Your task to perform on an android device: Search for razer thresher on walmart.com, select the first entry, add it to the cart, then select checkout. Image 0: 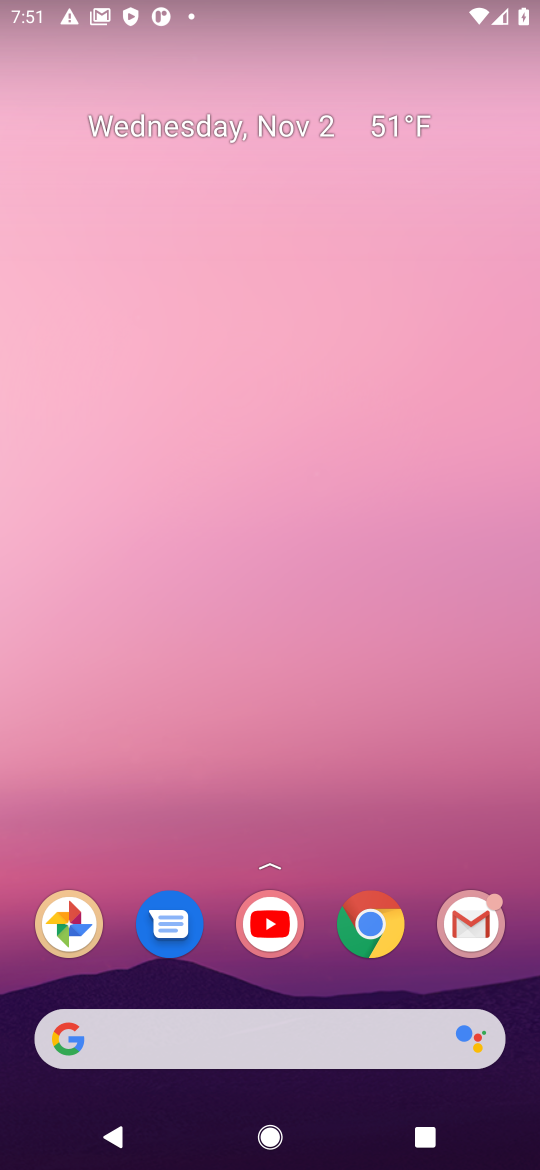
Step 0: click (369, 929)
Your task to perform on an android device: Search for razer thresher on walmart.com, select the first entry, add it to the cart, then select checkout. Image 1: 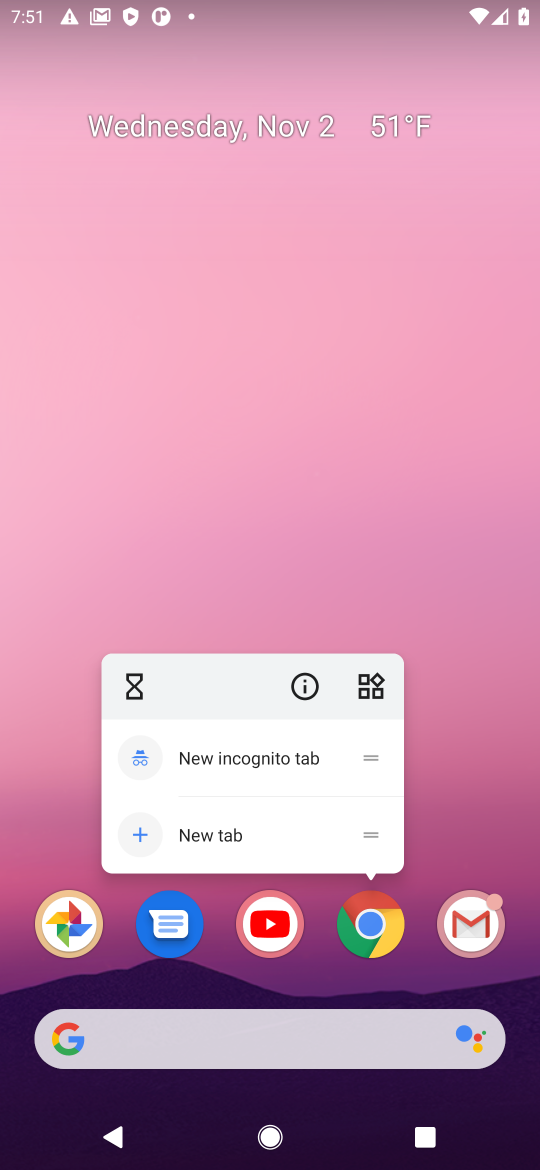
Step 1: click (371, 931)
Your task to perform on an android device: Search for razer thresher on walmart.com, select the first entry, add it to the cart, then select checkout. Image 2: 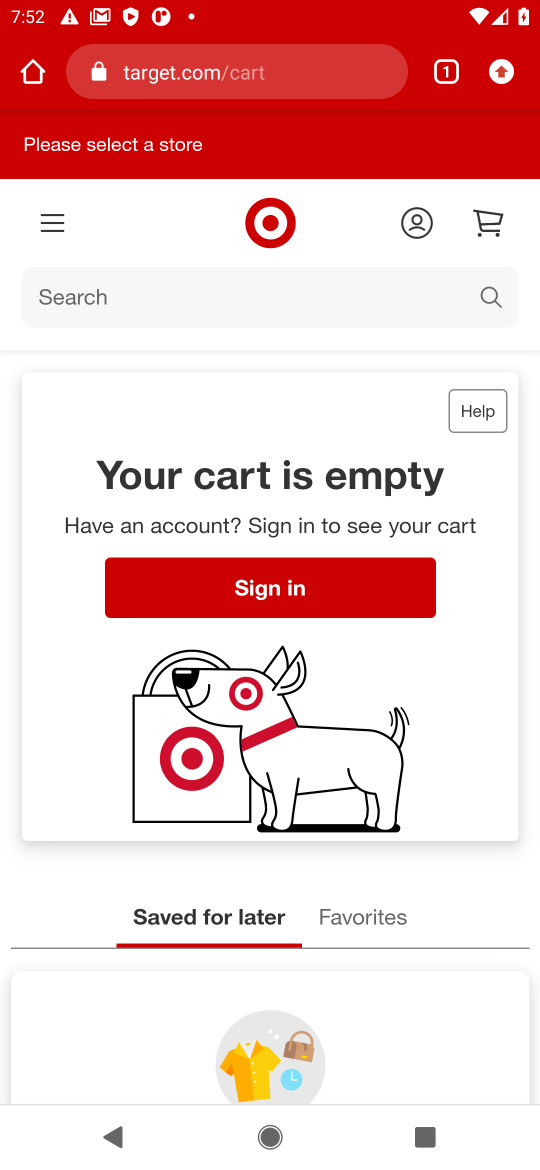
Step 2: click (289, 88)
Your task to perform on an android device: Search for razer thresher on walmart.com, select the first entry, add it to the cart, then select checkout. Image 3: 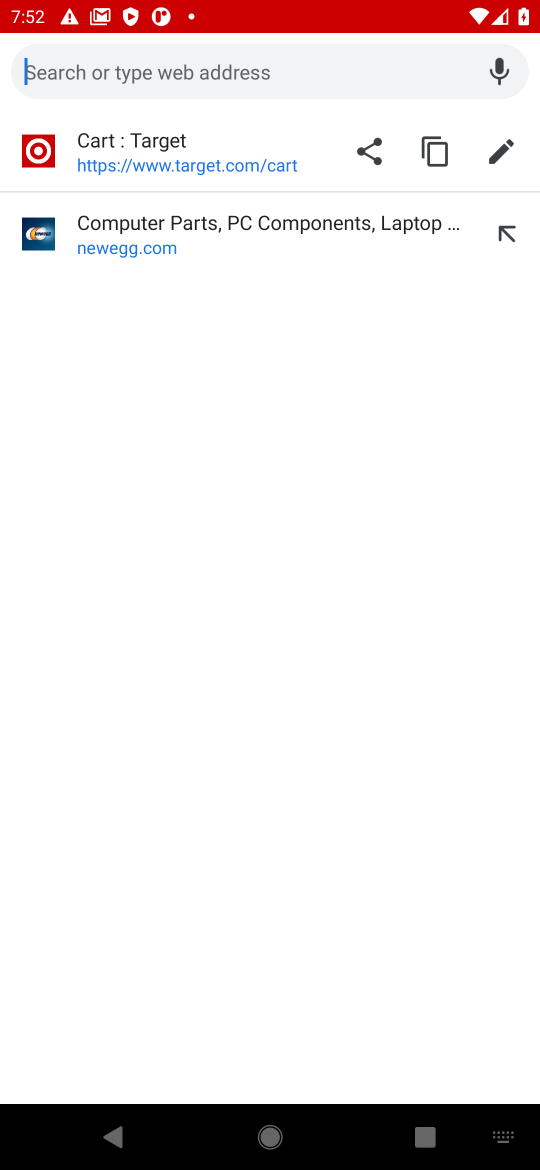
Step 3: type "walmart"
Your task to perform on an android device: Search for razer thresher on walmart.com, select the first entry, add it to the cart, then select checkout. Image 4: 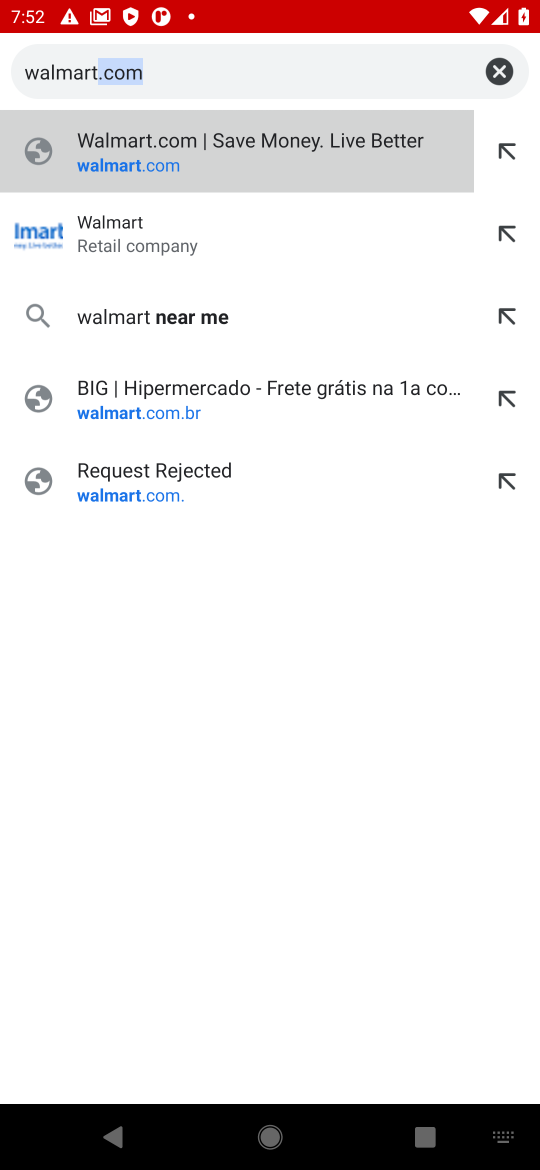
Step 4: click (148, 234)
Your task to perform on an android device: Search for razer thresher on walmart.com, select the first entry, add it to the cart, then select checkout. Image 5: 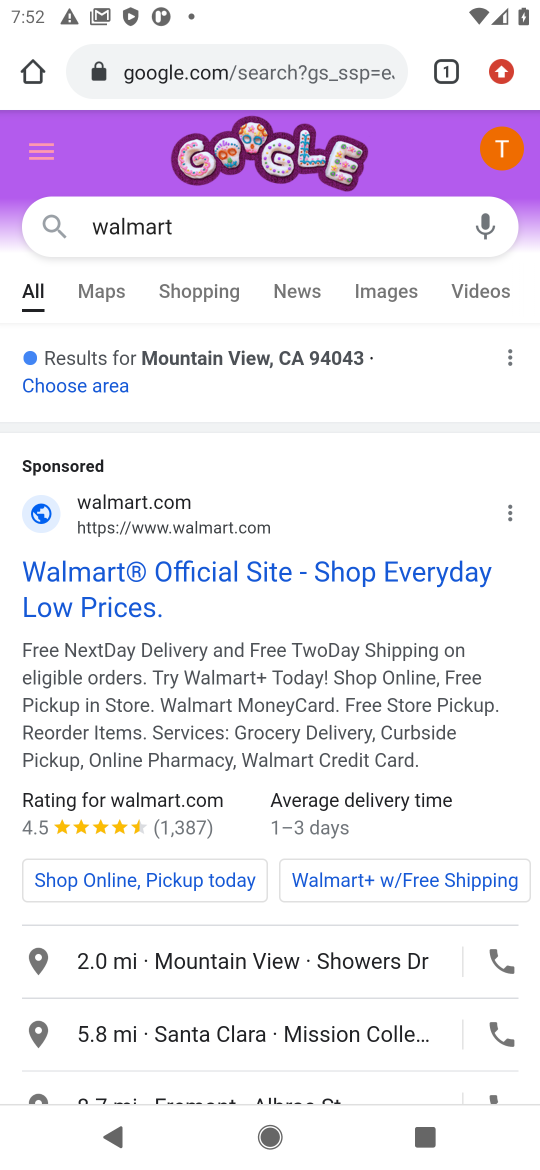
Step 5: click (181, 579)
Your task to perform on an android device: Search for razer thresher on walmart.com, select the first entry, add it to the cart, then select checkout. Image 6: 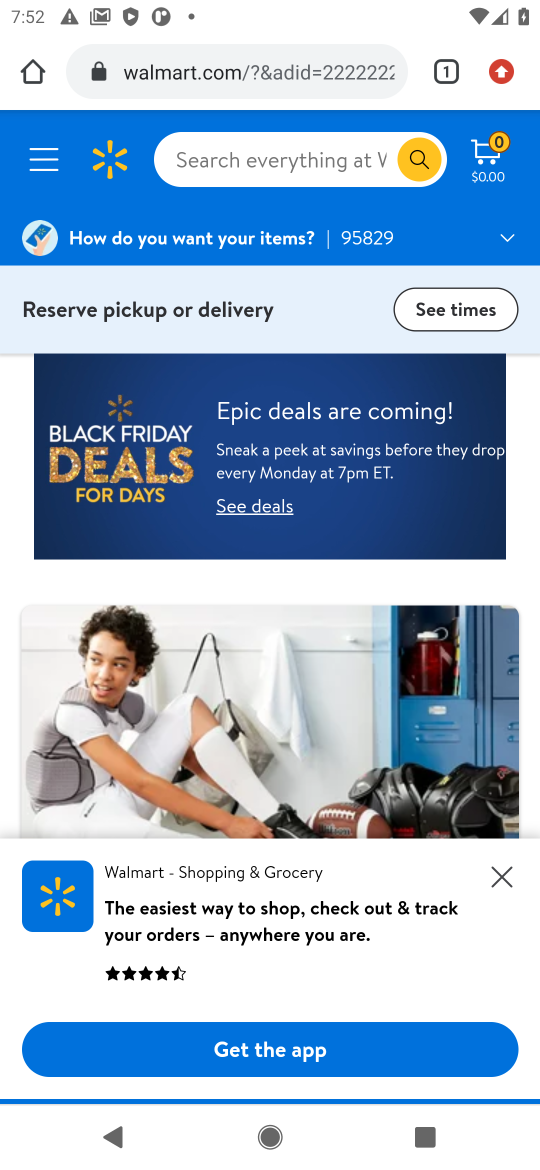
Step 6: click (288, 154)
Your task to perform on an android device: Search for razer thresher on walmart.com, select the first entry, add it to the cart, then select checkout. Image 7: 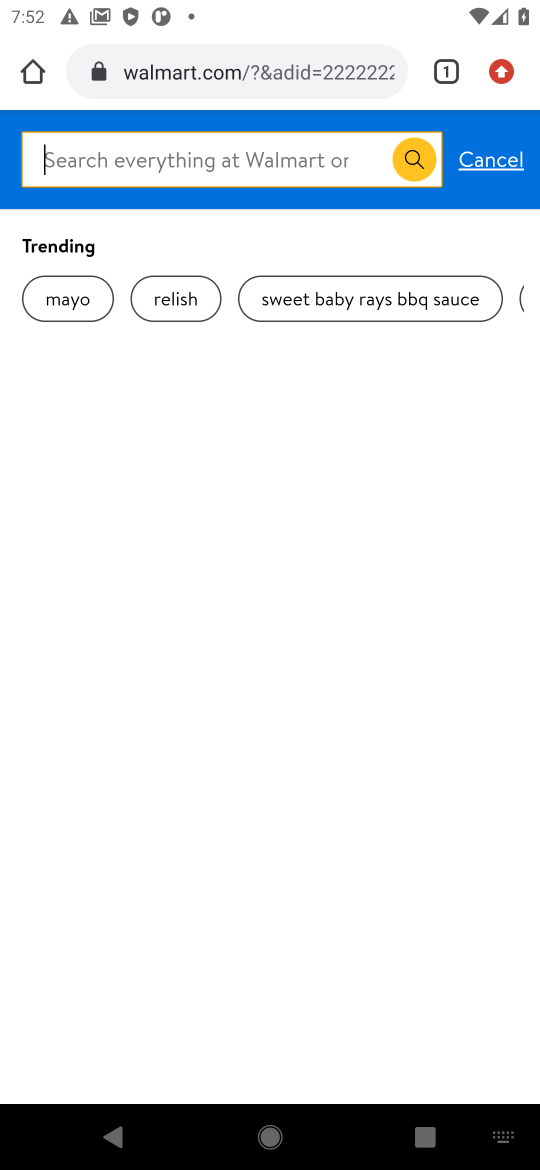
Step 7: type "razer thresher"
Your task to perform on an android device: Search for razer thresher on walmart.com, select the first entry, add it to the cart, then select checkout. Image 8: 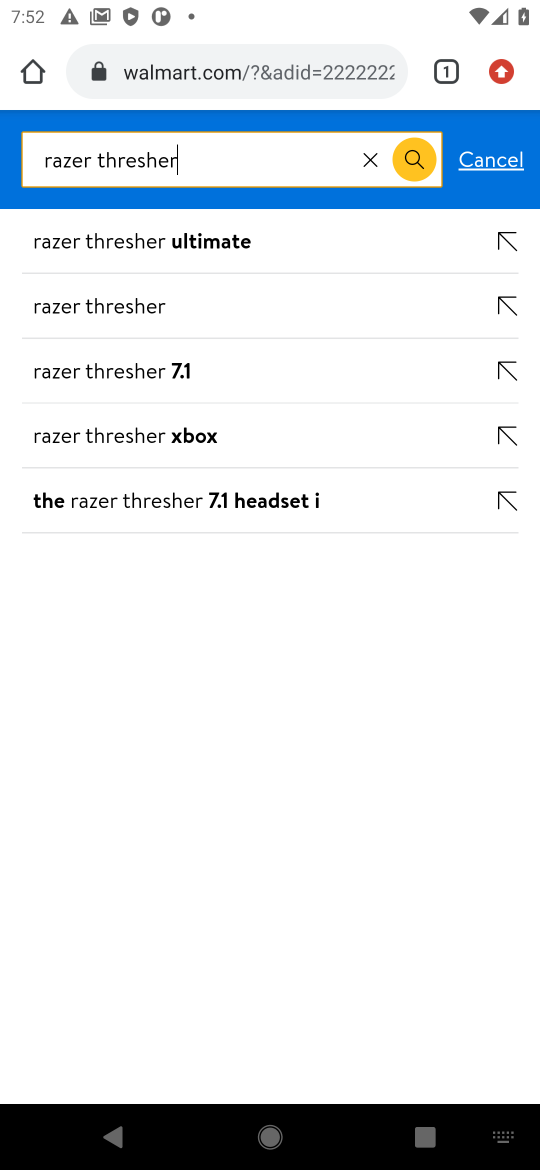
Step 8: type ""
Your task to perform on an android device: Search for razer thresher on walmart.com, select the first entry, add it to the cart, then select checkout. Image 9: 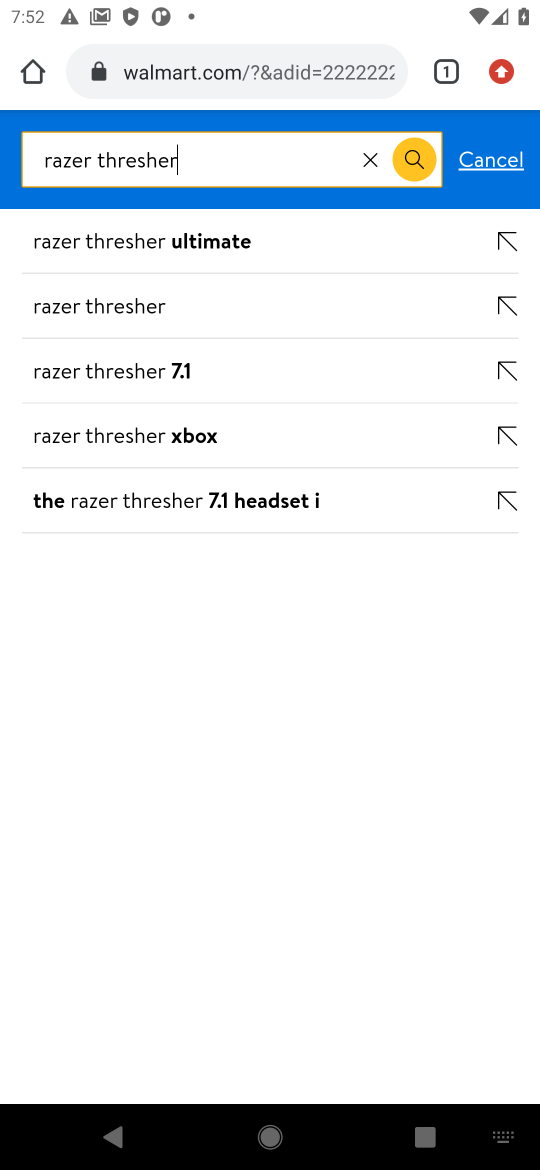
Step 9: click (114, 312)
Your task to perform on an android device: Search for razer thresher on walmart.com, select the first entry, add it to the cart, then select checkout. Image 10: 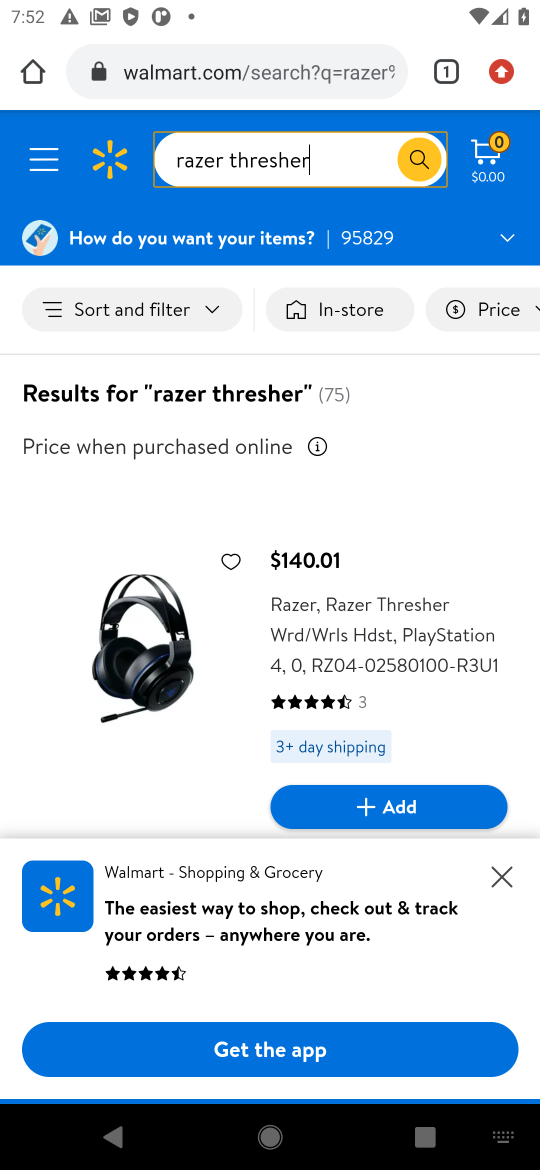
Step 10: click (500, 876)
Your task to perform on an android device: Search for razer thresher on walmart.com, select the first entry, add it to the cart, then select checkout. Image 11: 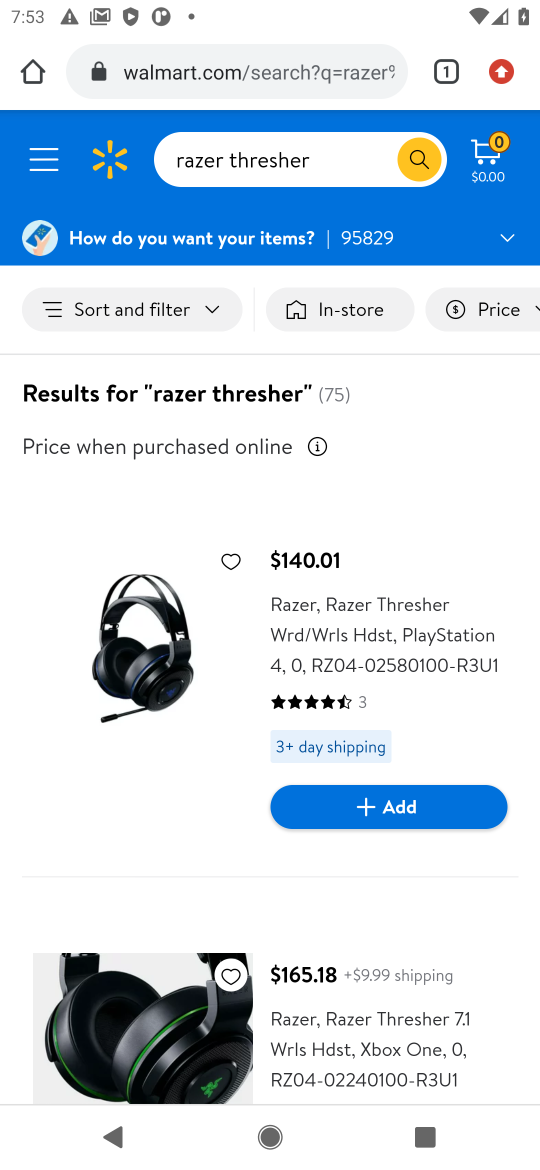
Step 11: click (354, 610)
Your task to perform on an android device: Search for razer thresher on walmart.com, select the first entry, add it to the cart, then select checkout. Image 12: 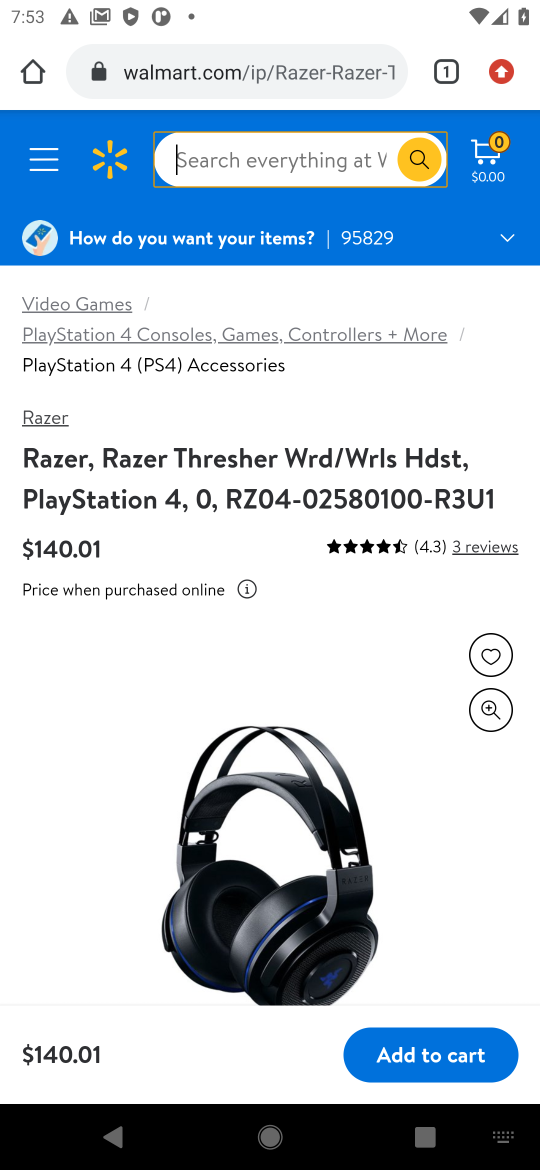
Step 12: click (411, 1054)
Your task to perform on an android device: Search for razer thresher on walmart.com, select the first entry, add it to the cart, then select checkout. Image 13: 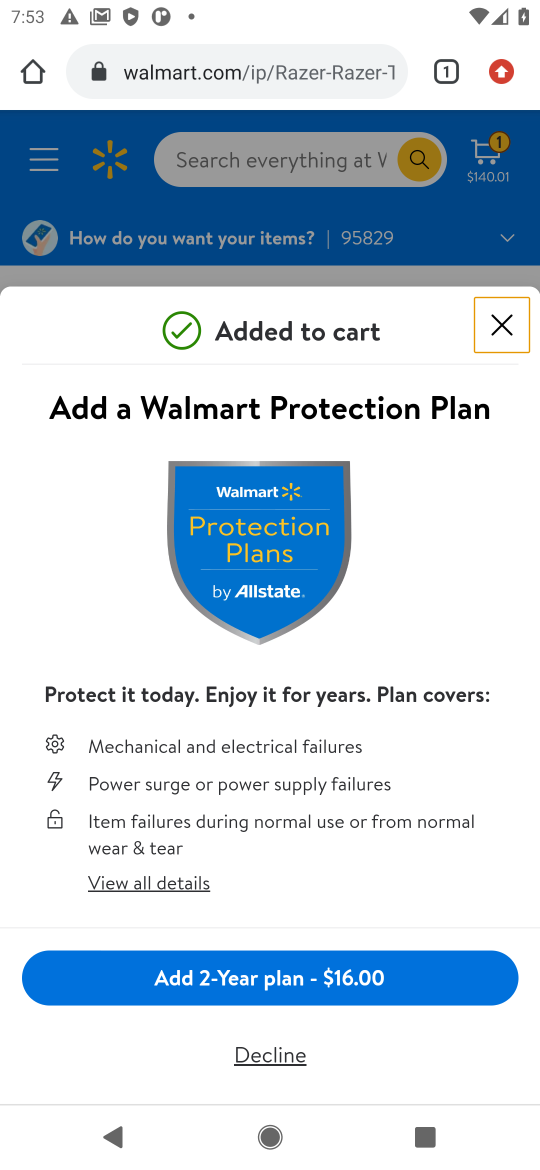
Step 13: click (495, 313)
Your task to perform on an android device: Search for razer thresher on walmart.com, select the first entry, add it to the cart, then select checkout. Image 14: 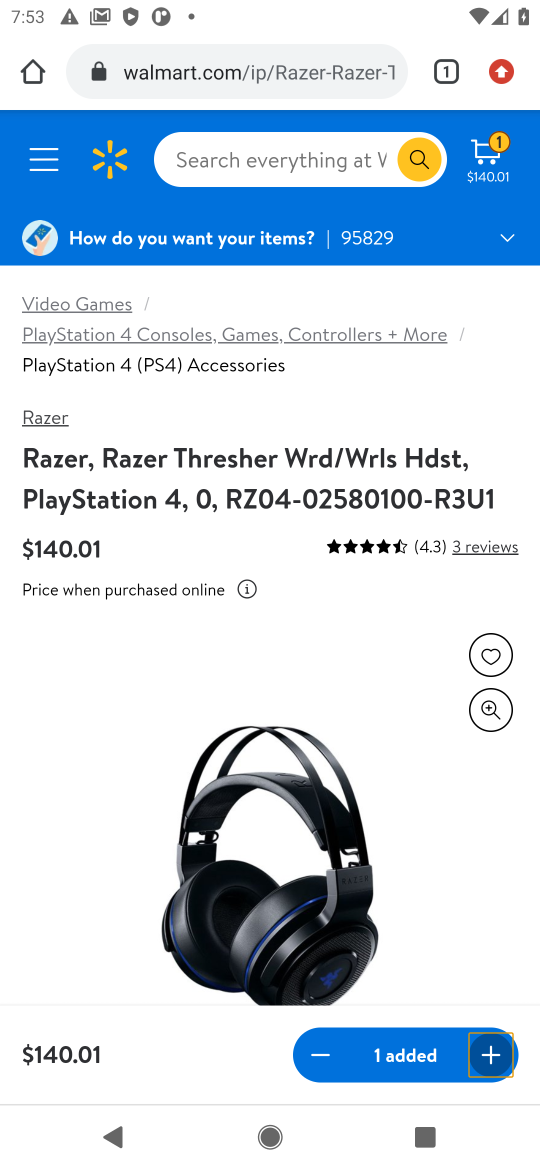
Step 14: click (498, 169)
Your task to perform on an android device: Search for razer thresher on walmart.com, select the first entry, add it to the cart, then select checkout. Image 15: 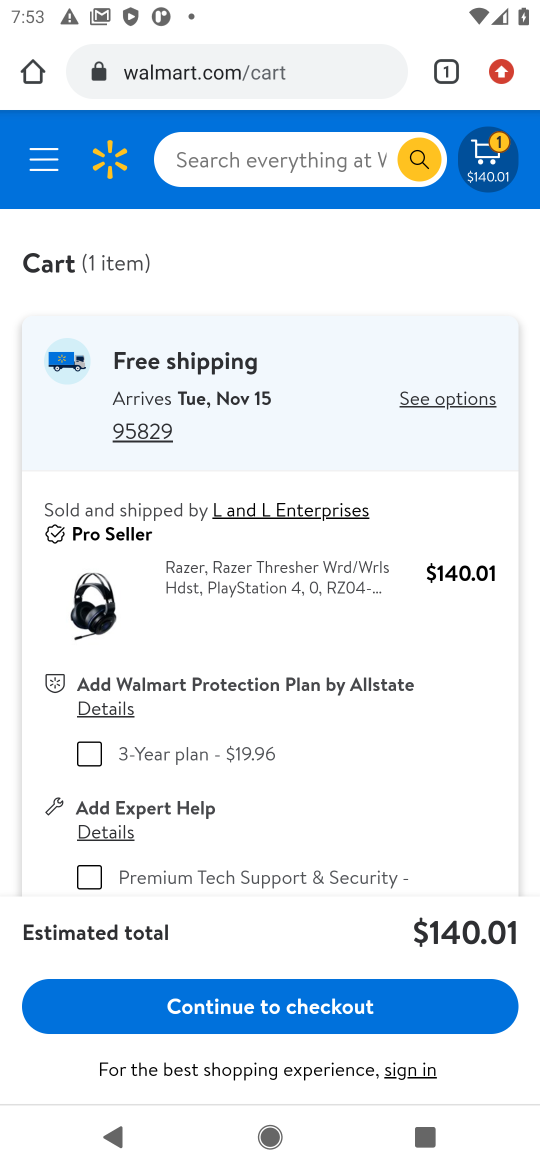
Step 15: click (367, 1008)
Your task to perform on an android device: Search for razer thresher on walmart.com, select the first entry, add it to the cart, then select checkout. Image 16: 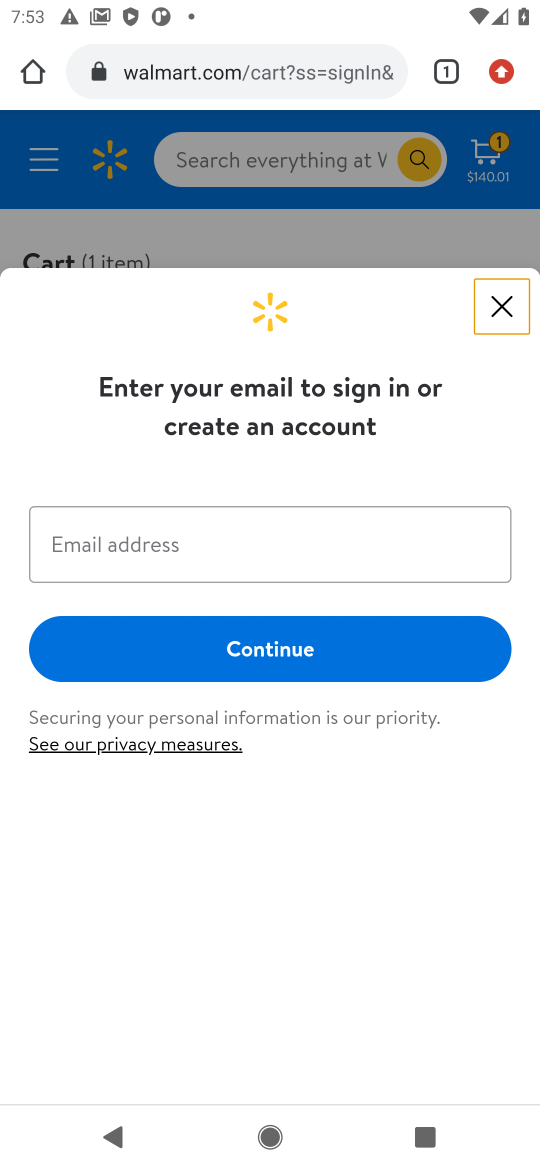
Step 16: click (498, 312)
Your task to perform on an android device: Search for razer thresher on walmart.com, select the first entry, add it to the cart, then select checkout. Image 17: 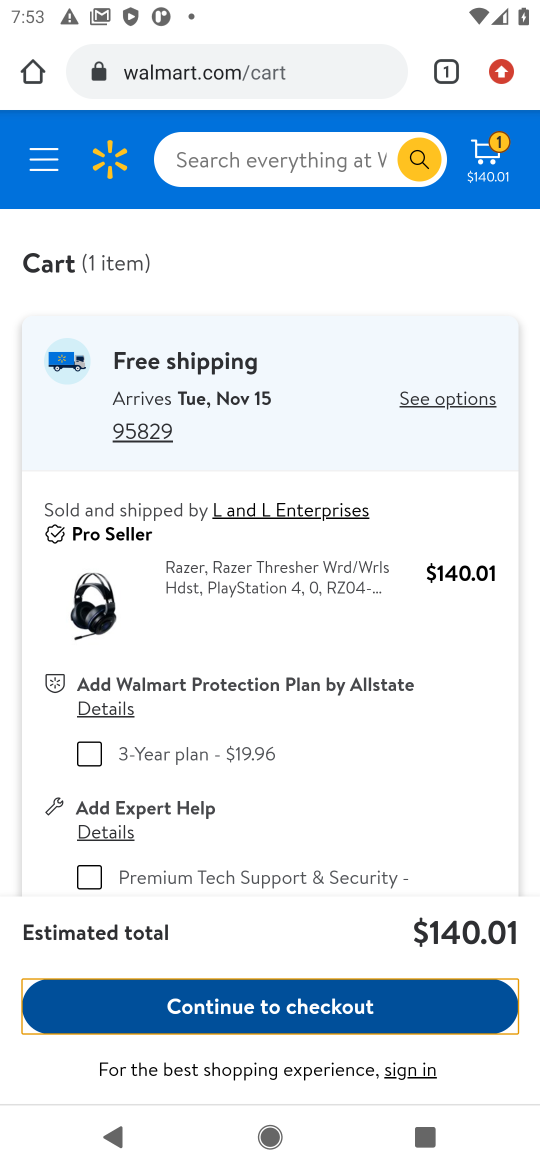
Step 17: click (246, 1022)
Your task to perform on an android device: Search for razer thresher on walmart.com, select the first entry, add it to the cart, then select checkout. Image 18: 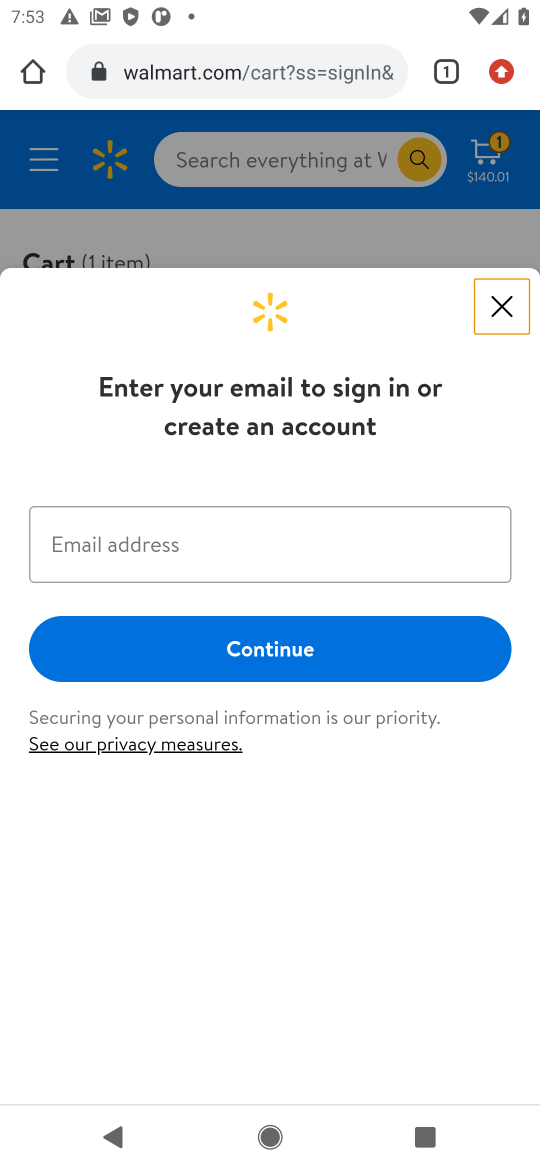
Step 18: click (494, 300)
Your task to perform on an android device: Search for razer thresher on walmart.com, select the first entry, add it to the cart, then select checkout. Image 19: 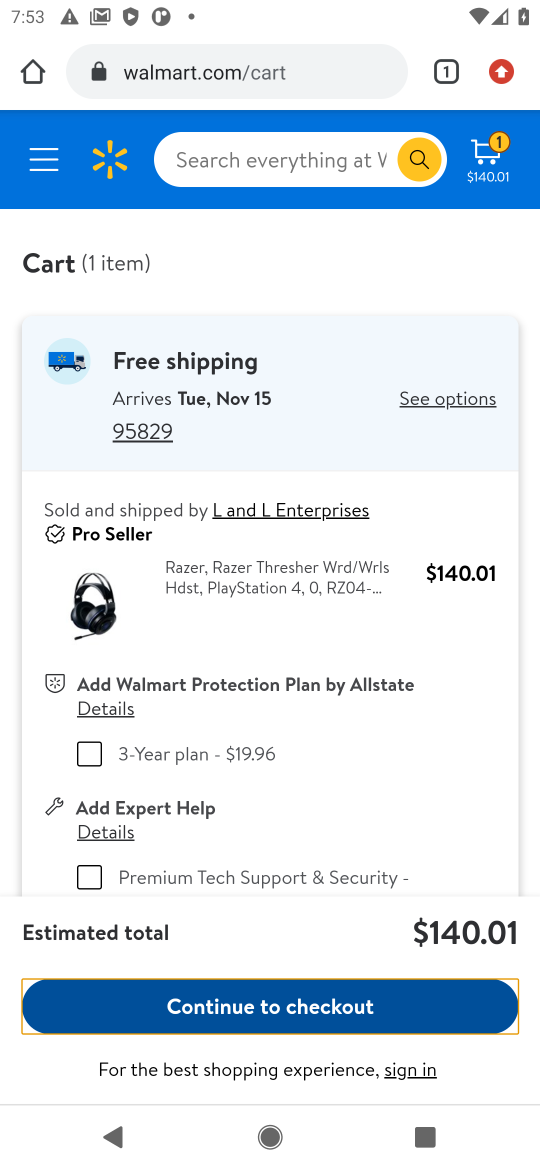
Step 19: click (303, 1011)
Your task to perform on an android device: Search for razer thresher on walmart.com, select the first entry, add it to the cart, then select checkout. Image 20: 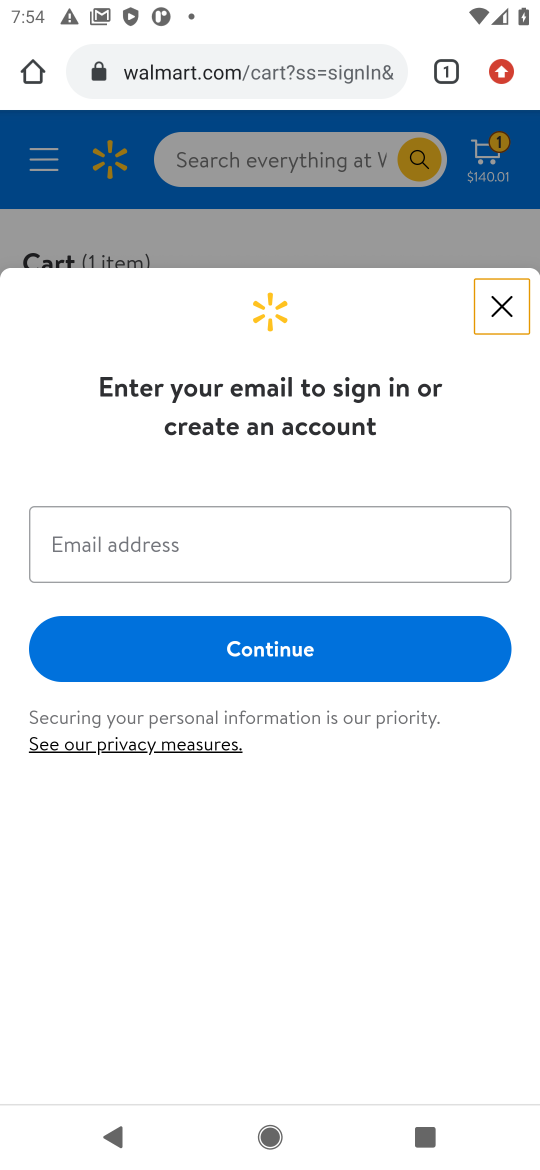
Step 20: click (508, 302)
Your task to perform on an android device: Search for razer thresher on walmart.com, select the first entry, add it to the cart, then select checkout. Image 21: 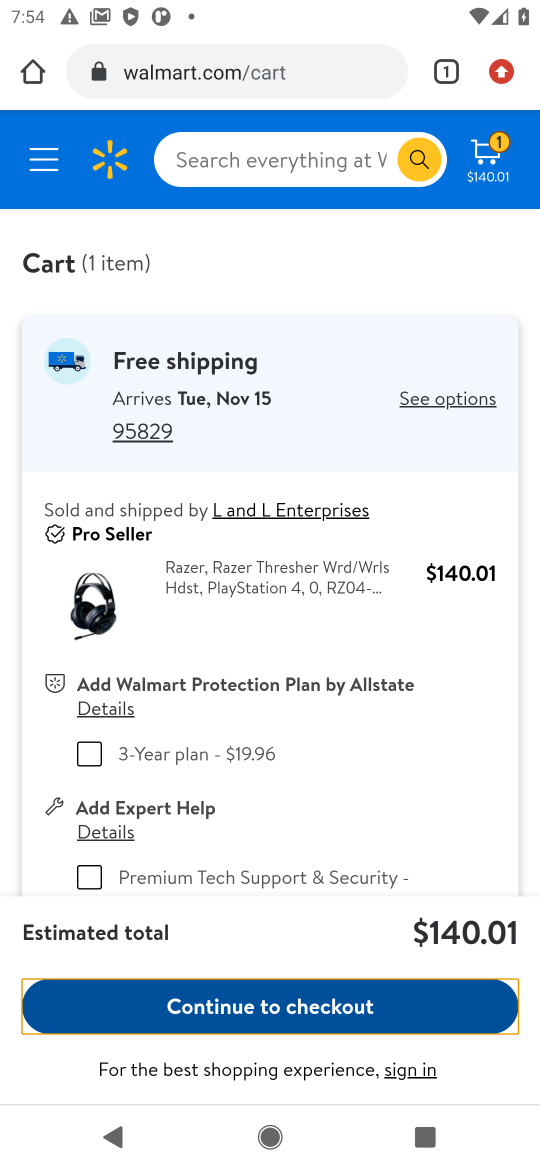
Step 21: task complete